Your task to perform on an android device: Open Chrome and go to the settings page Image 0: 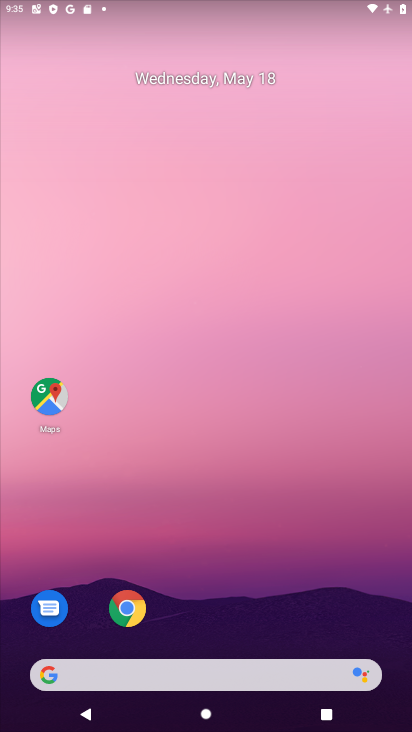
Step 0: click (130, 609)
Your task to perform on an android device: Open Chrome and go to the settings page Image 1: 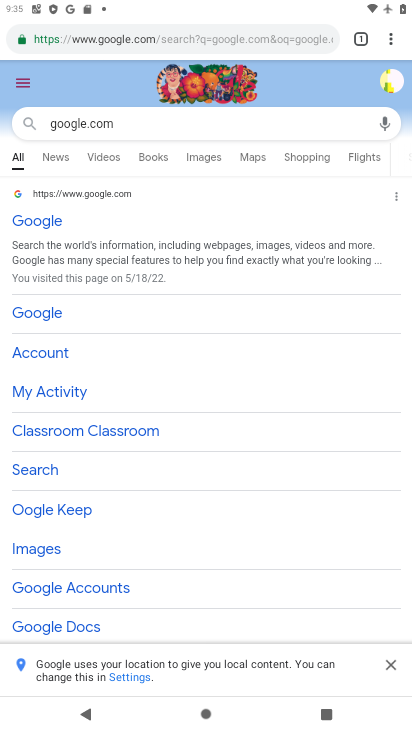
Step 1: click (384, 31)
Your task to perform on an android device: Open Chrome and go to the settings page Image 2: 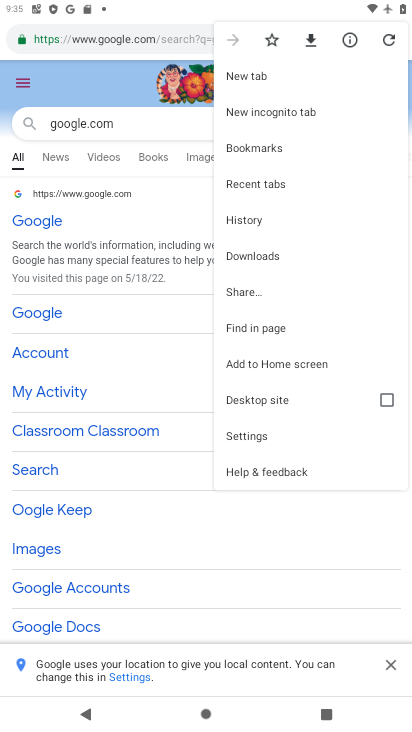
Step 2: click (254, 431)
Your task to perform on an android device: Open Chrome and go to the settings page Image 3: 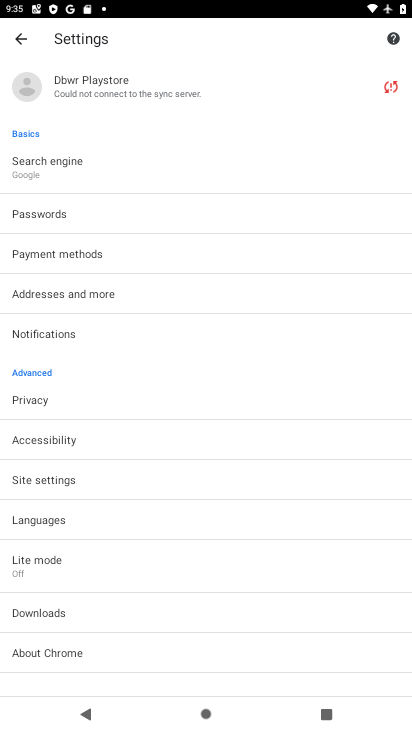
Step 3: task complete